Your task to perform on an android device: Go to Yahoo.com Image 0: 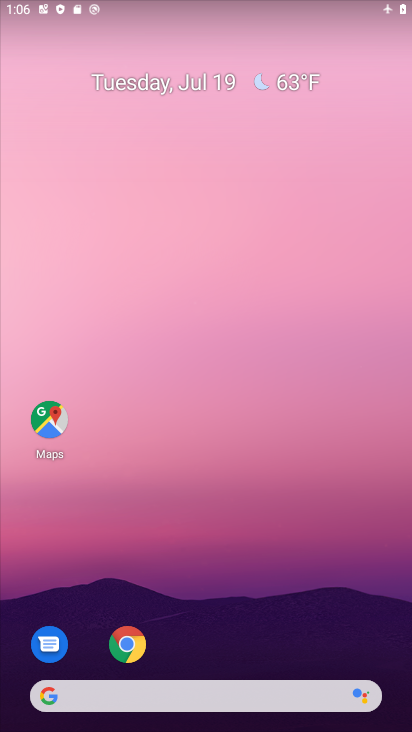
Step 0: click (128, 645)
Your task to perform on an android device: Go to Yahoo.com Image 1: 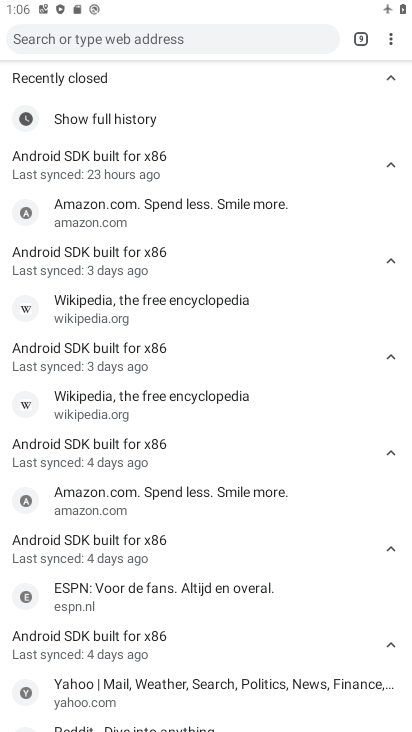
Step 1: click (389, 44)
Your task to perform on an android device: Go to Yahoo.com Image 2: 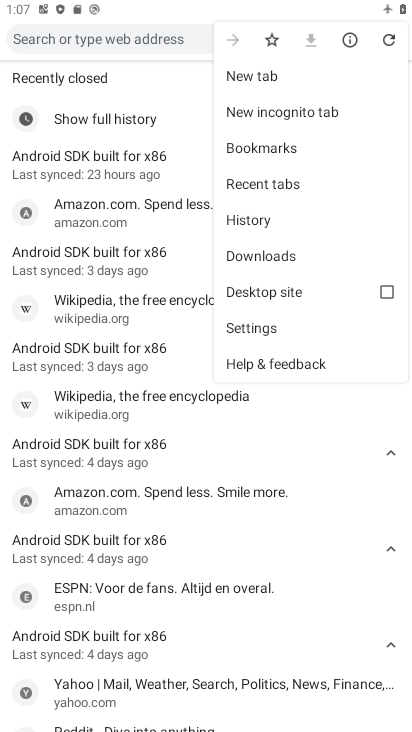
Step 2: click (253, 75)
Your task to perform on an android device: Go to Yahoo.com Image 3: 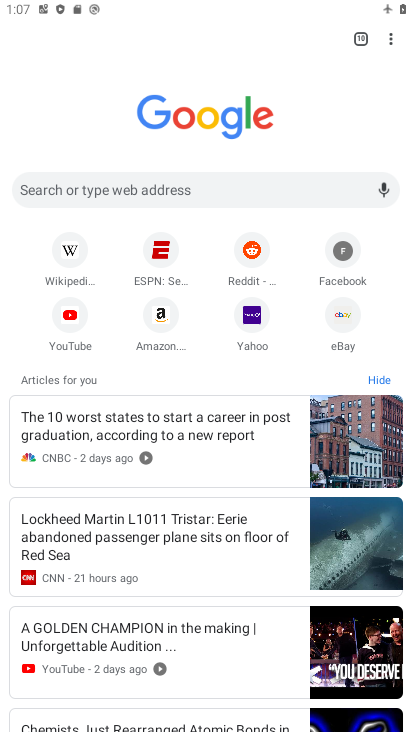
Step 3: click (253, 312)
Your task to perform on an android device: Go to Yahoo.com Image 4: 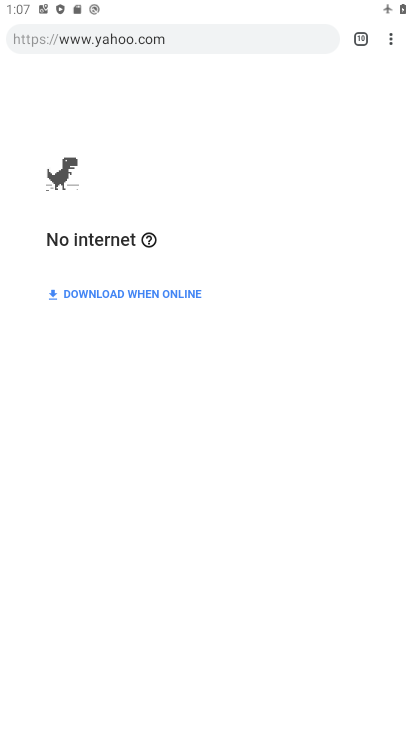
Step 4: task complete